Your task to perform on an android device: turn off translation in the chrome app Image 0: 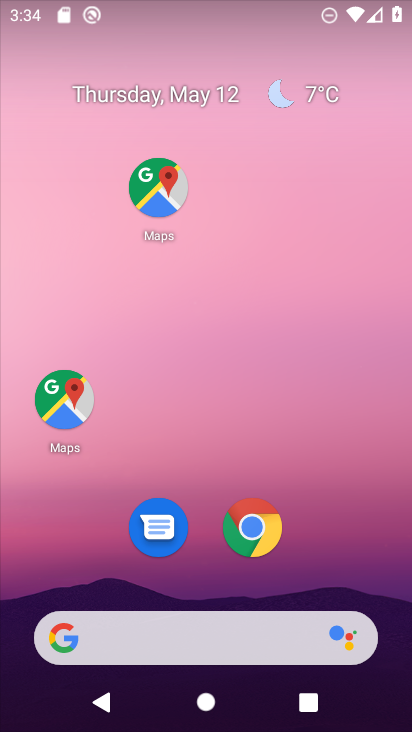
Step 0: click (226, 525)
Your task to perform on an android device: turn off translation in the chrome app Image 1: 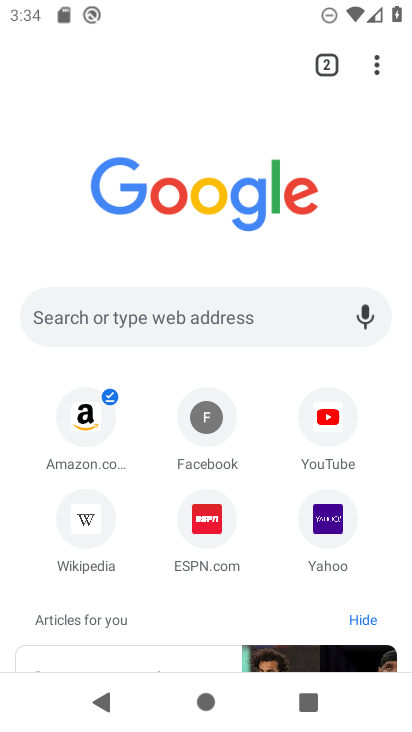
Step 1: click (372, 63)
Your task to perform on an android device: turn off translation in the chrome app Image 2: 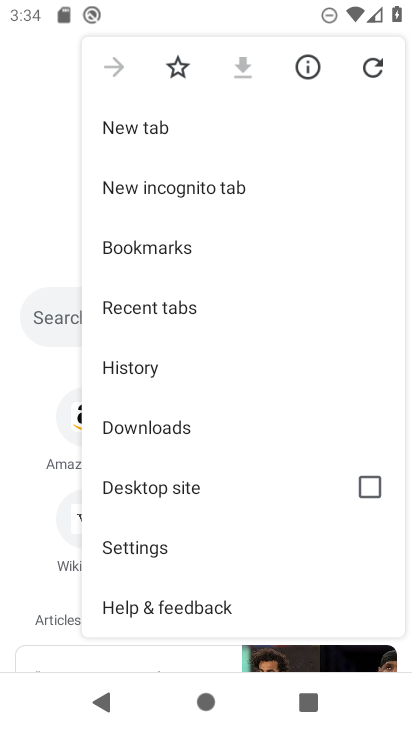
Step 2: click (170, 551)
Your task to perform on an android device: turn off translation in the chrome app Image 3: 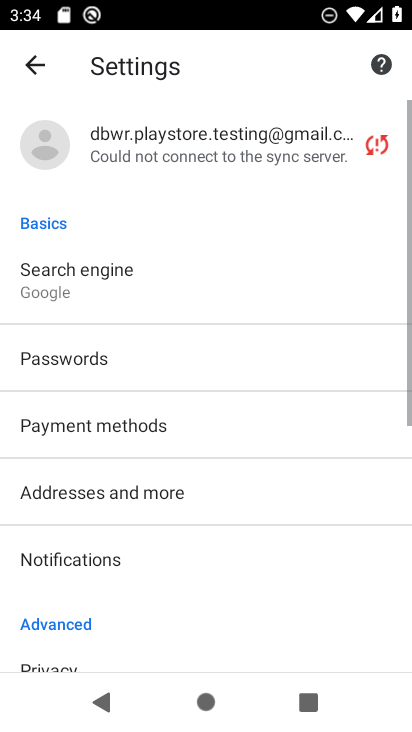
Step 3: drag from (184, 542) to (143, 52)
Your task to perform on an android device: turn off translation in the chrome app Image 4: 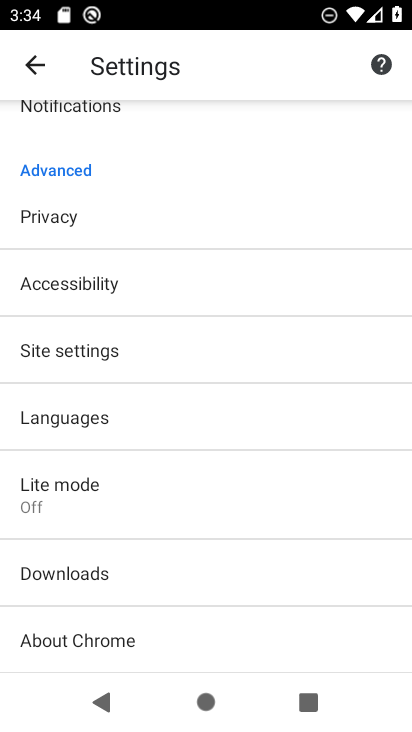
Step 4: click (63, 354)
Your task to perform on an android device: turn off translation in the chrome app Image 5: 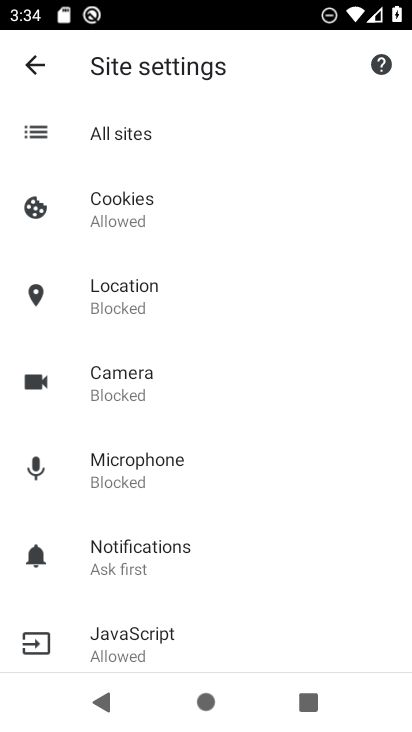
Step 5: click (42, 60)
Your task to perform on an android device: turn off translation in the chrome app Image 6: 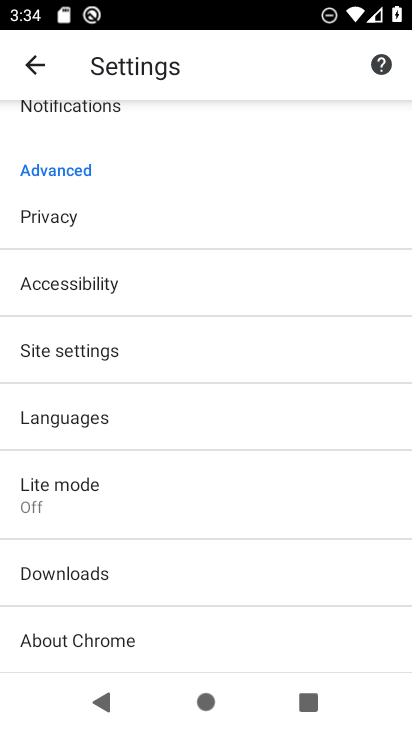
Step 6: click (54, 422)
Your task to perform on an android device: turn off translation in the chrome app Image 7: 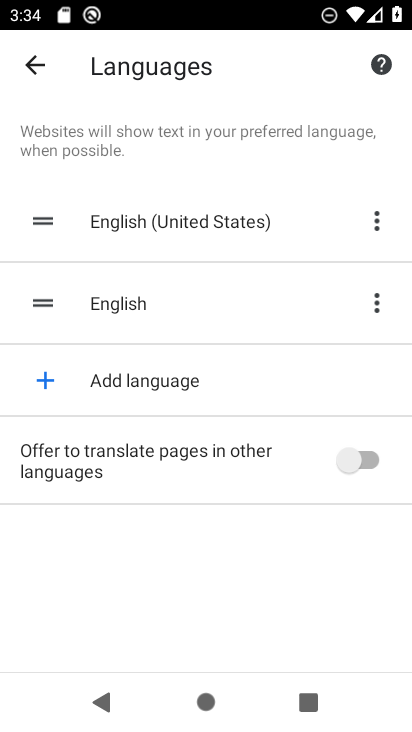
Step 7: task complete